Your task to perform on an android device: open app "LiveIn - Share Your Moment" Image 0: 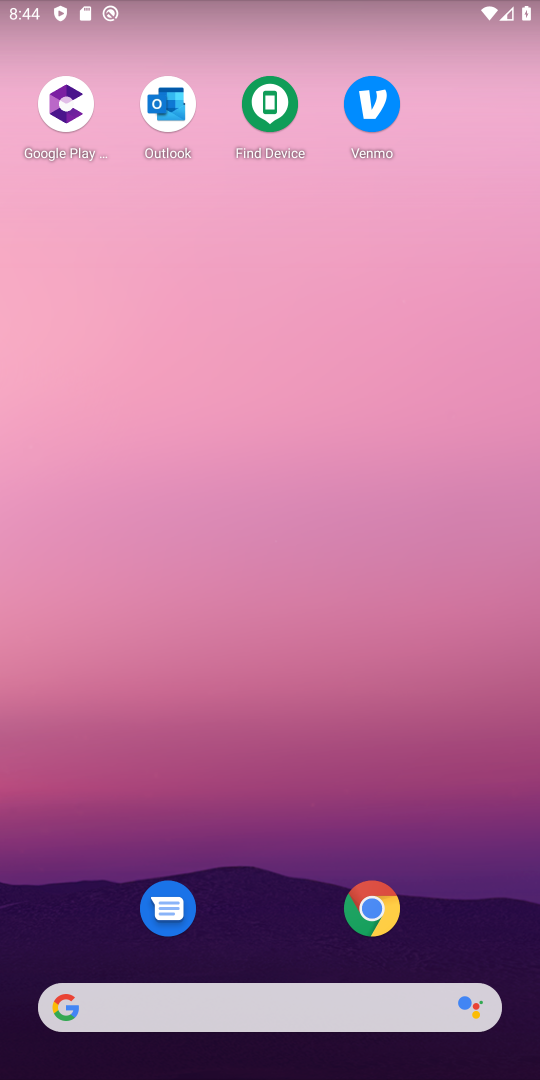
Step 0: drag from (246, 941) to (293, 47)
Your task to perform on an android device: open app "LiveIn - Share Your Moment" Image 1: 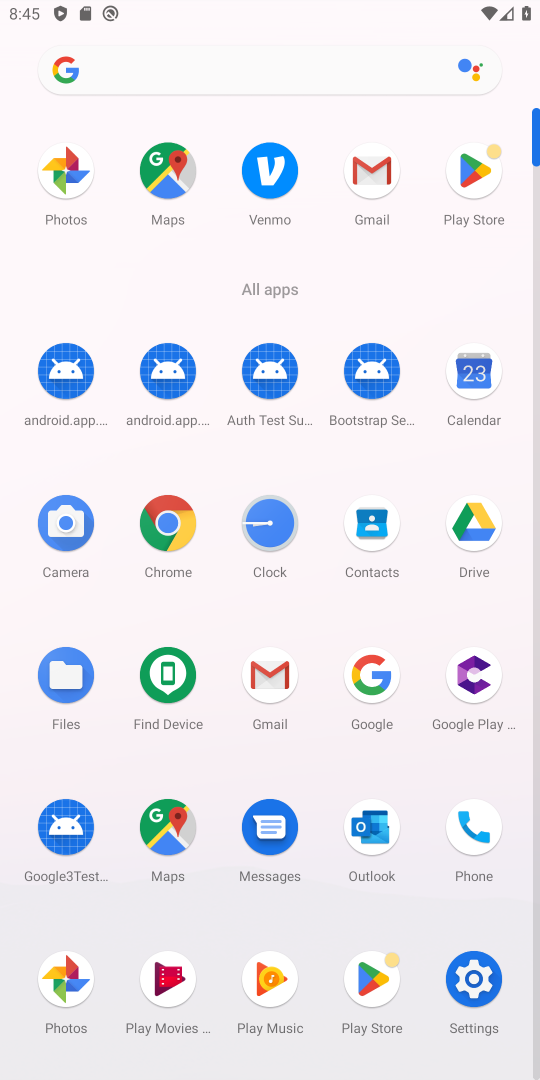
Step 1: click (476, 196)
Your task to perform on an android device: open app "LiveIn - Share Your Moment" Image 2: 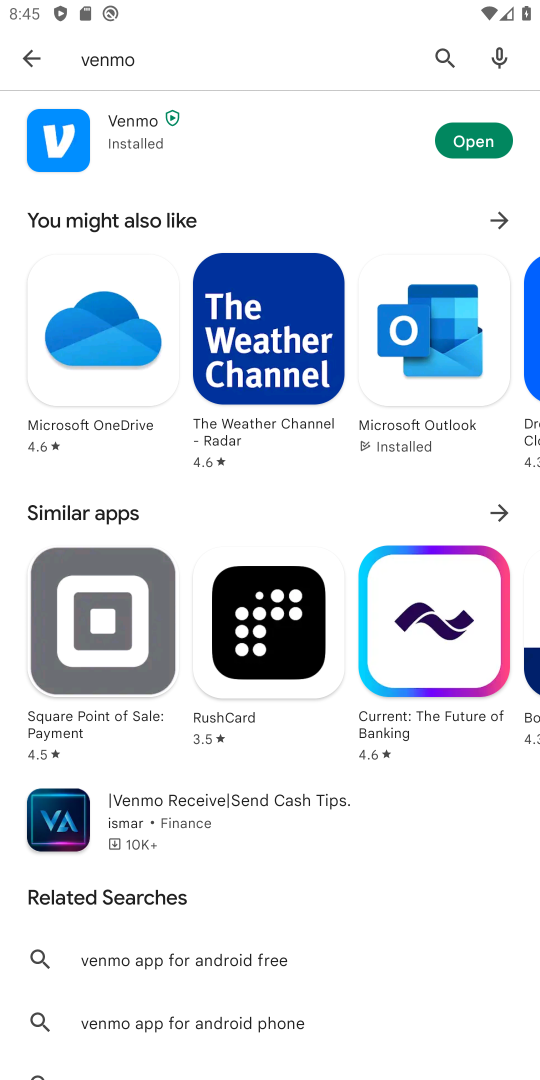
Step 2: click (201, 39)
Your task to perform on an android device: open app "LiveIn - Share Your Moment" Image 3: 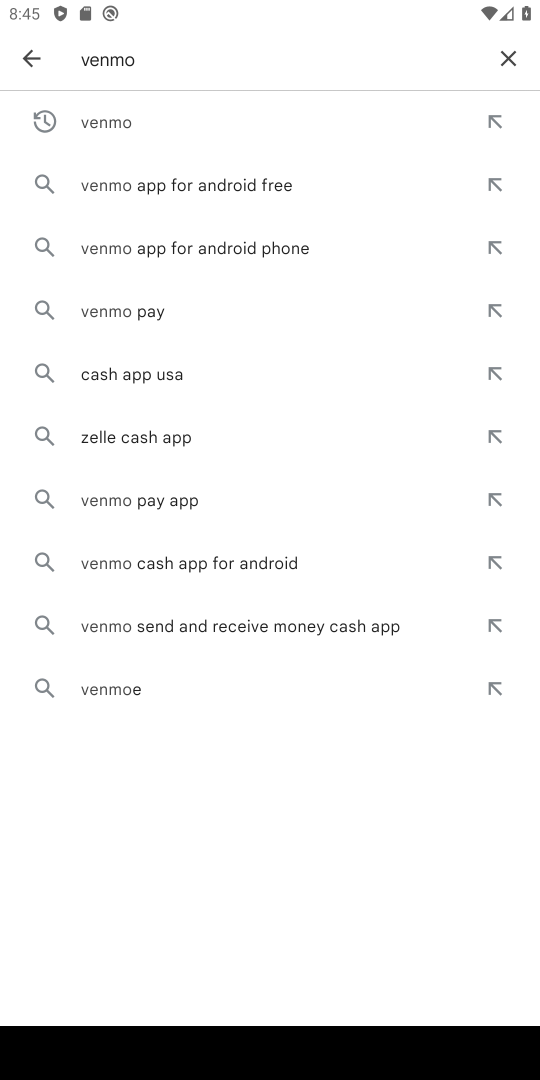
Step 3: click (498, 54)
Your task to perform on an android device: open app "LiveIn - Share Your Moment" Image 4: 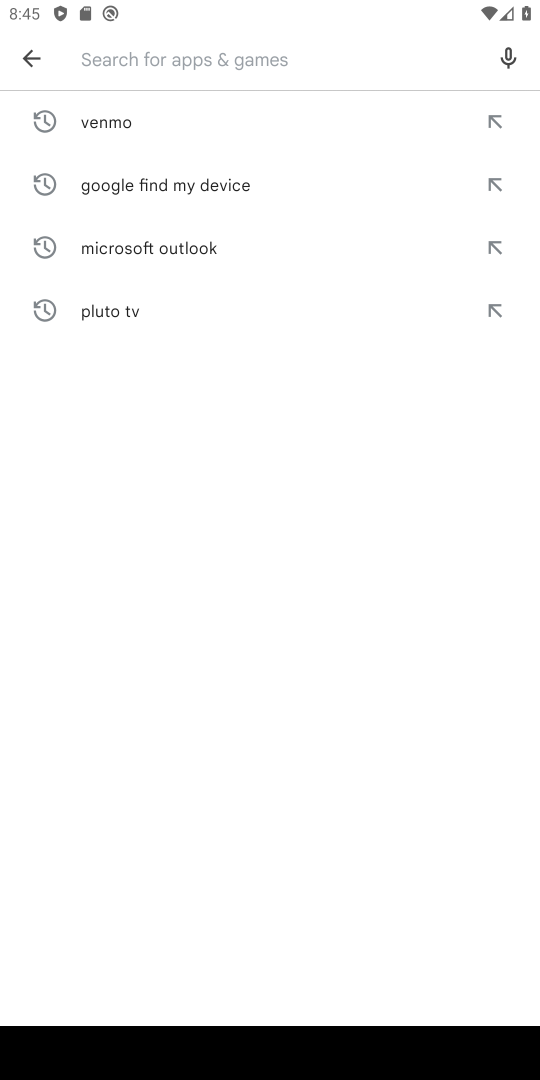
Step 4: type "liveIn"
Your task to perform on an android device: open app "LiveIn - Share Your Moment" Image 5: 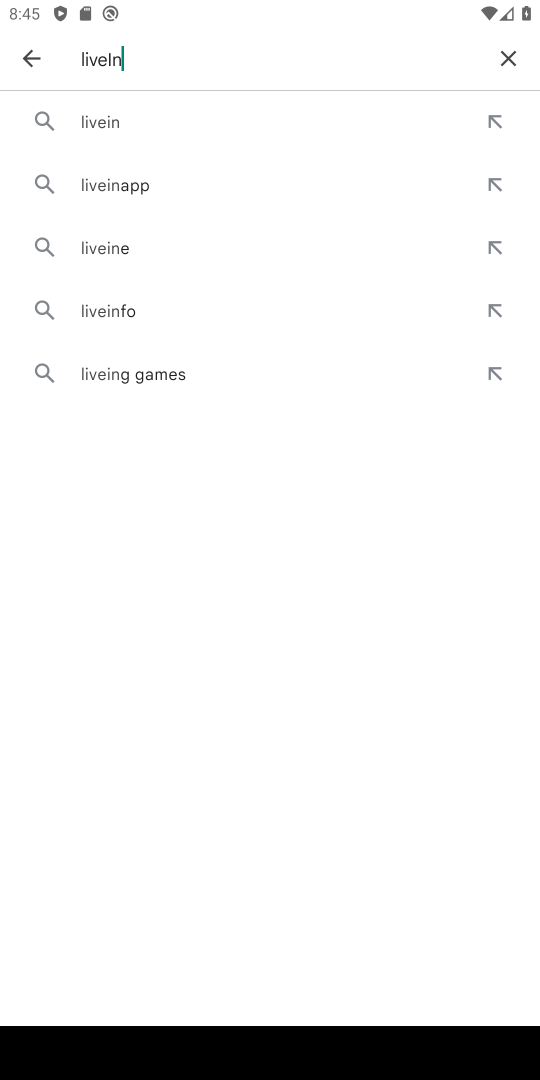
Step 5: click (112, 124)
Your task to perform on an android device: open app "LiveIn - Share Your Moment" Image 6: 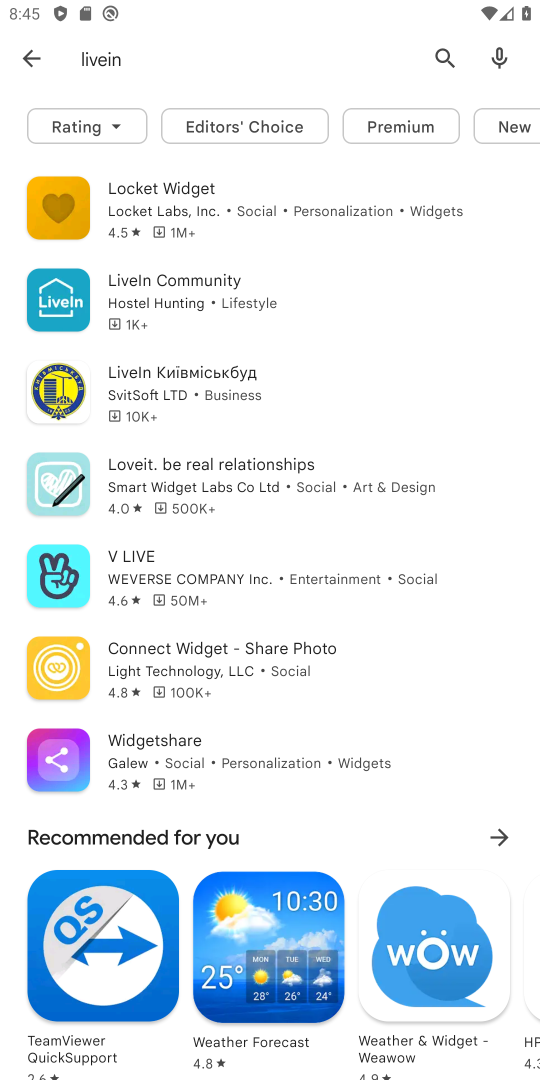
Step 6: click (200, 306)
Your task to perform on an android device: open app "LiveIn - Share Your Moment" Image 7: 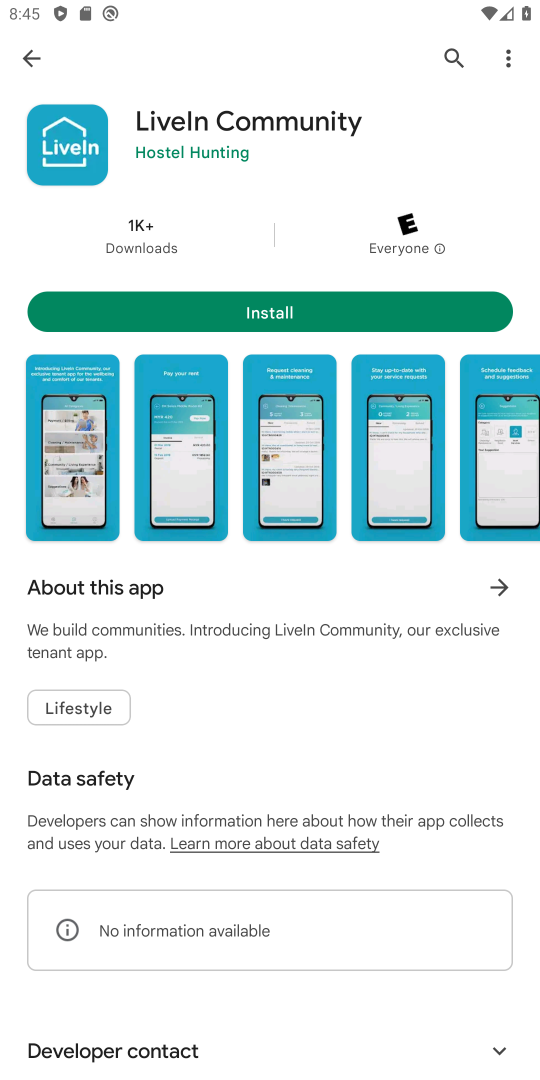
Step 7: task complete